Your task to perform on an android device: set default search engine in the chrome app Image 0: 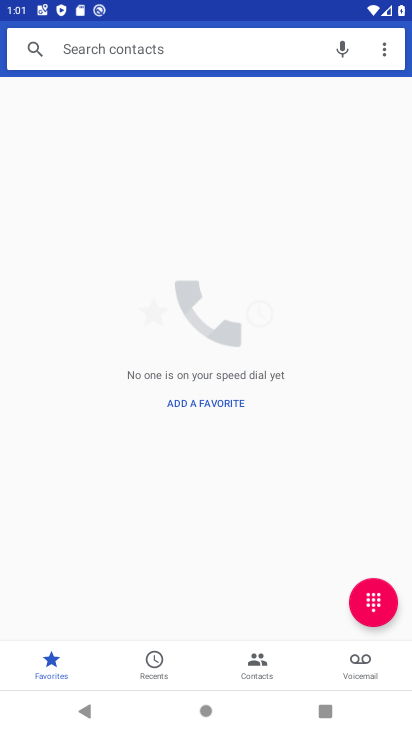
Step 0: press back button
Your task to perform on an android device: set default search engine in the chrome app Image 1: 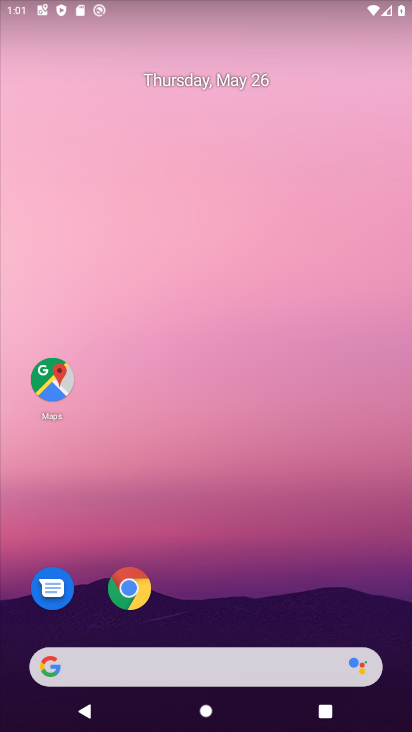
Step 1: click (132, 583)
Your task to perform on an android device: set default search engine in the chrome app Image 2: 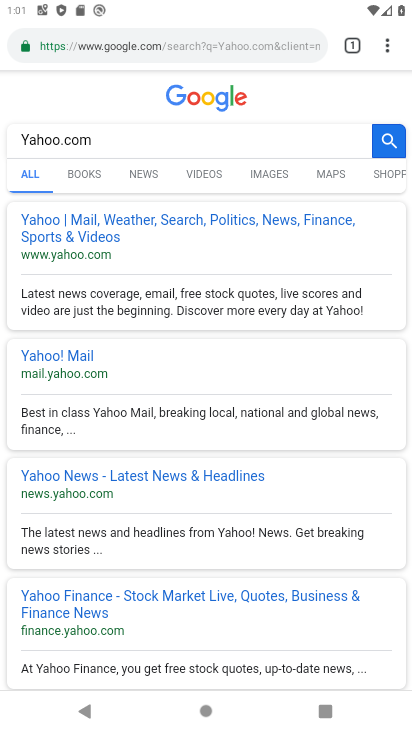
Step 2: click (388, 42)
Your task to perform on an android device: set default search engine in the chrome app Image 3: 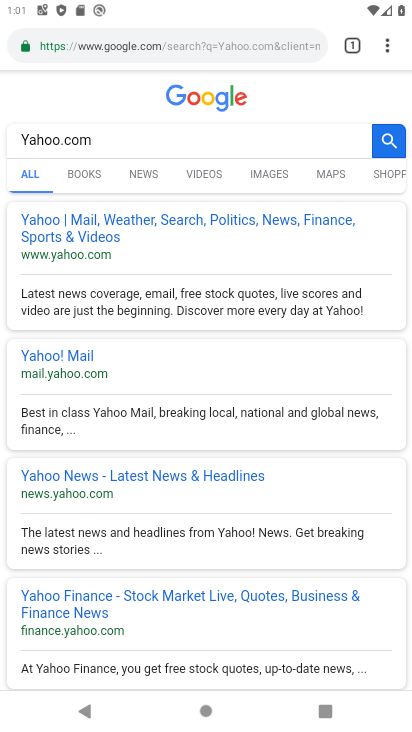
Step 3: click (383, 43)
Your task to perform on an android device: set default search engine in the chrome app Image 4: 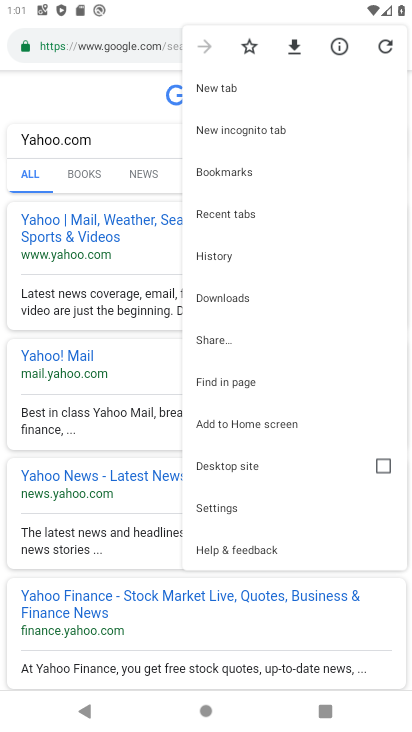
Step 4: click (216, 515)
Your task to perform on an android device: set default search engine in the chrome app Image 5: 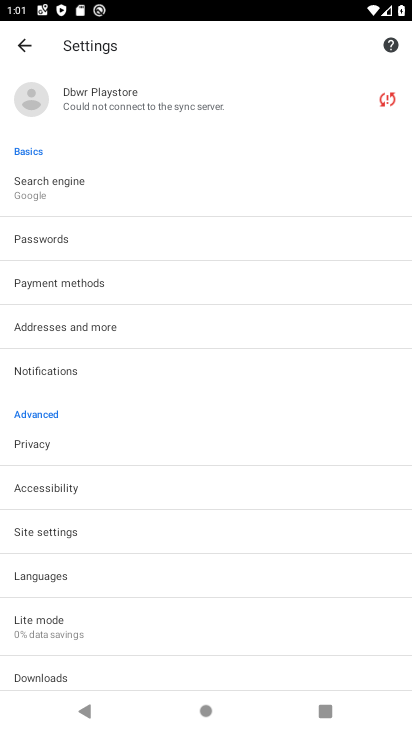
Step 5: click (75, 199)
Your task to perform on an android device: set default search engine in the chrome app Image 6: 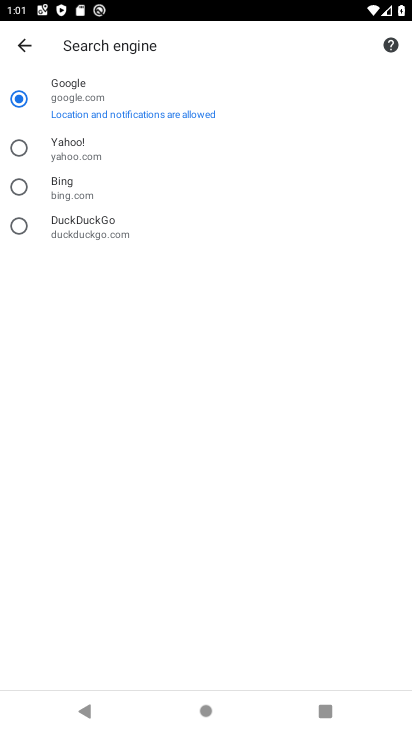
Step 6: task complete